Your task to perform on an android device: check google app version Image 0: 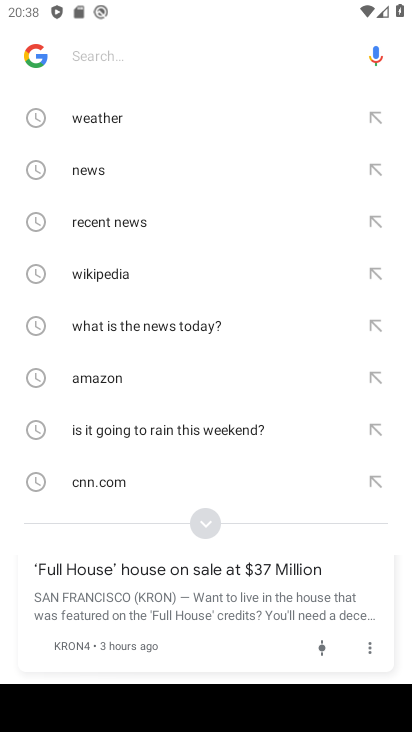
Step 0: press home button
Your task to perform on an android device: check google app version Image 1: 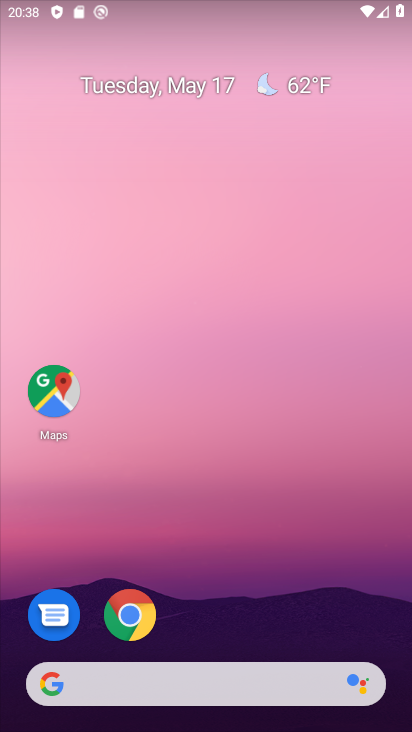
Step 1: drag from (288, 518) to (262, 45)
Your task to perform on an android device: check google app version Image 2: 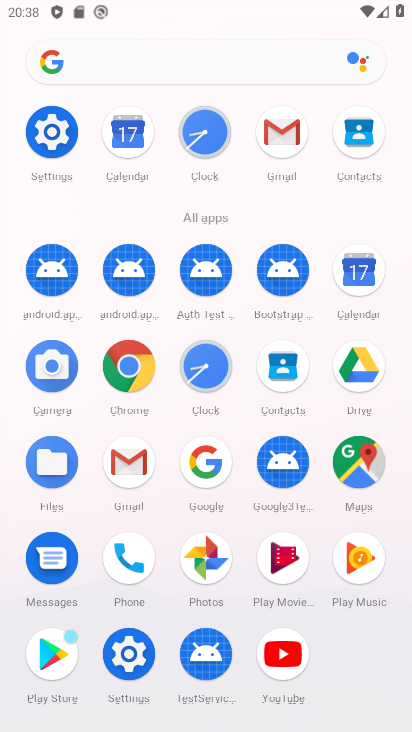
Step 2: click (197, 472)
Your task to perform on an android device: check google app version Image 3: 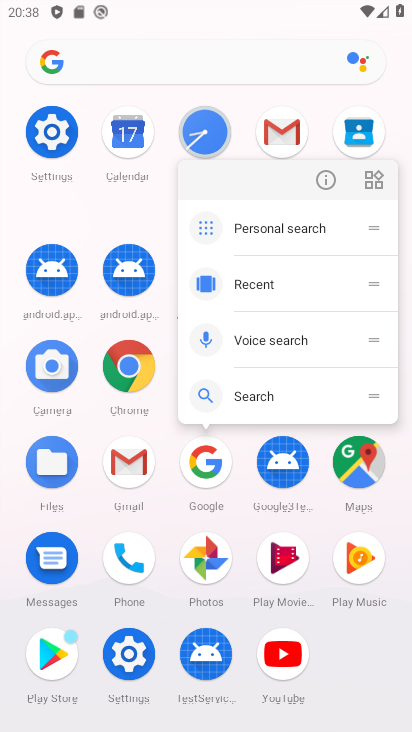
Step 3: click (319, 181)
Your task to perform on an android device: check google app version Image 4: 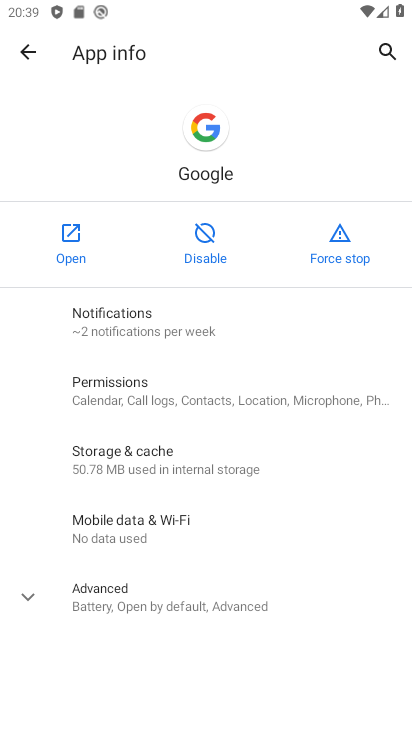
Step 4: click (145, 603)
Your task to perform on an android device: check google app version Image 5: 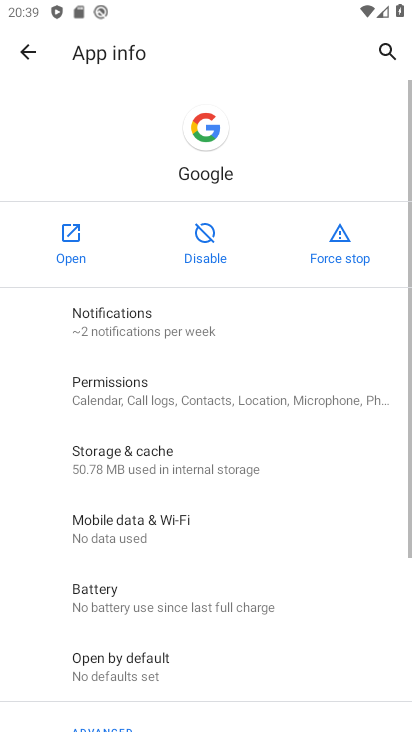
Step 5: task complete